Your task to perform on an android device: Go to accessibility settings Image 0: 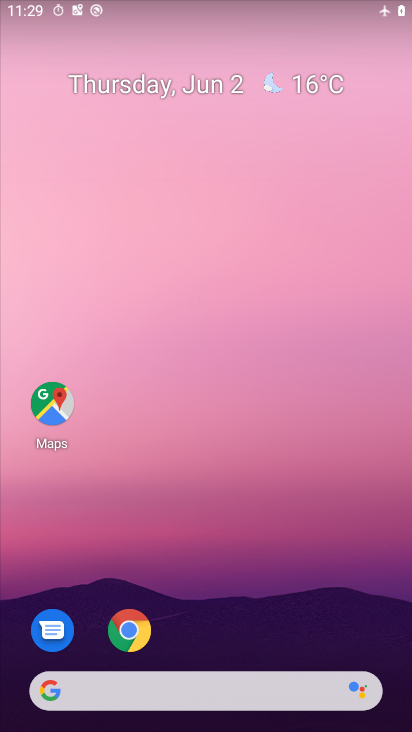
Step 0: drag from (213, 624) to (274, 90)
Your task to perform on an android device: Go to accessibility settings Image 1: 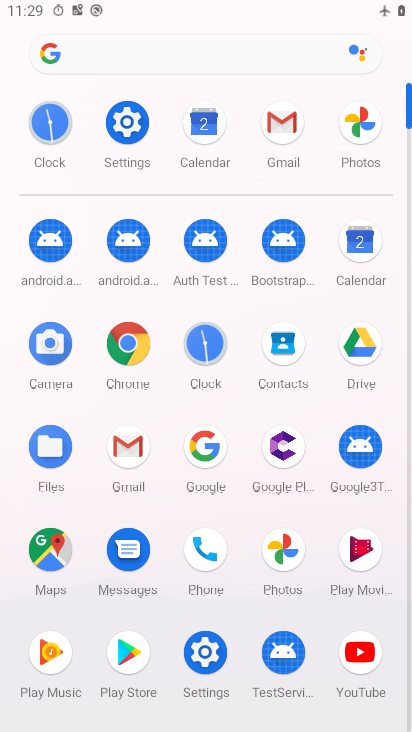
Step 1: click (125, 157)
Your task to perform on an android device: Go to accessibility settings Image 2: 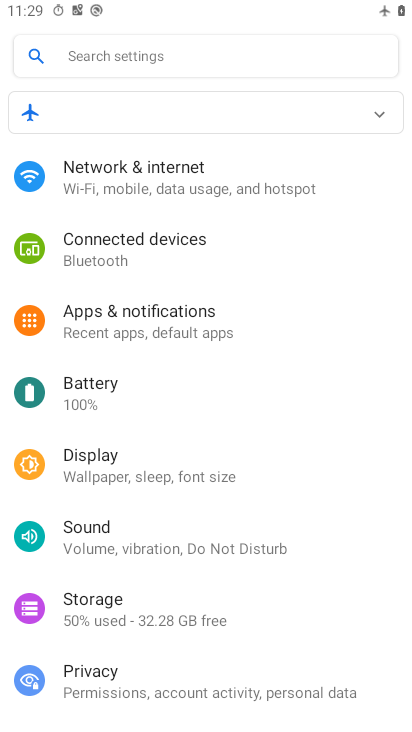
Step 2: drag from (149, 599) to (177, 414)
Your task to perform on an android device: Go to accessibility settings Image 3: 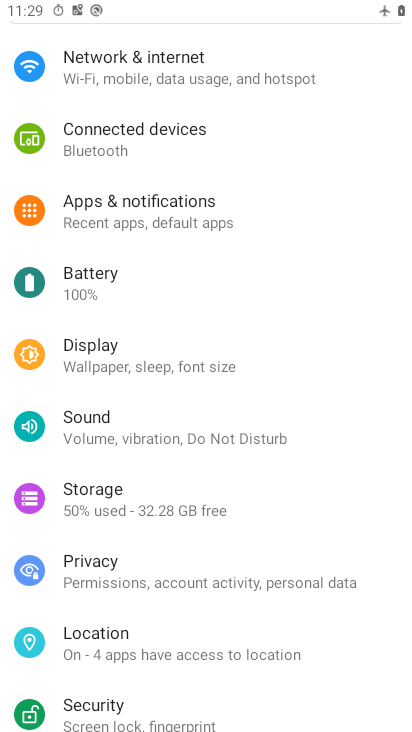
Step 3: drag from (172, 653) to (205, 396)
Your task to perform on an android device: Go to accessibility settings Image 4: 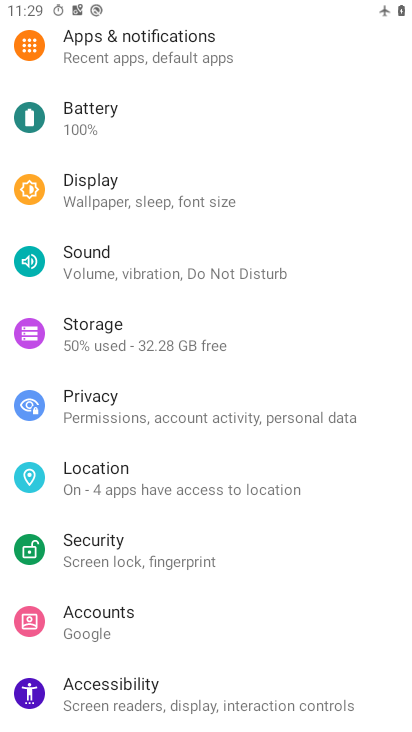
Step 4: click (130, 680)
Your task to perform on an android device: Go to accessibility settings Image 5: 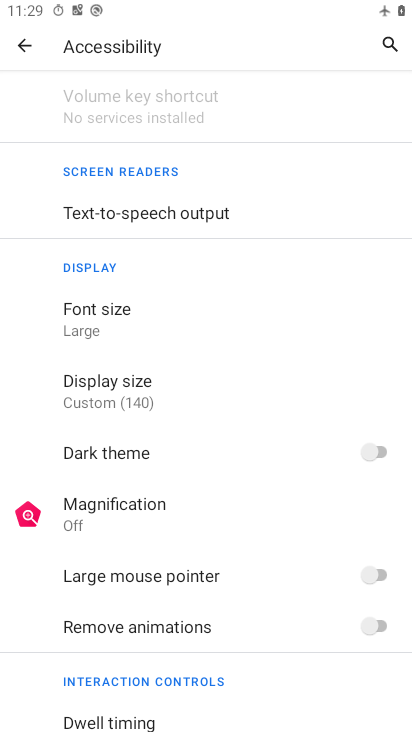
Step 5: task complete